Your task to perform on an android device: Go to accessibility settings Image 0: 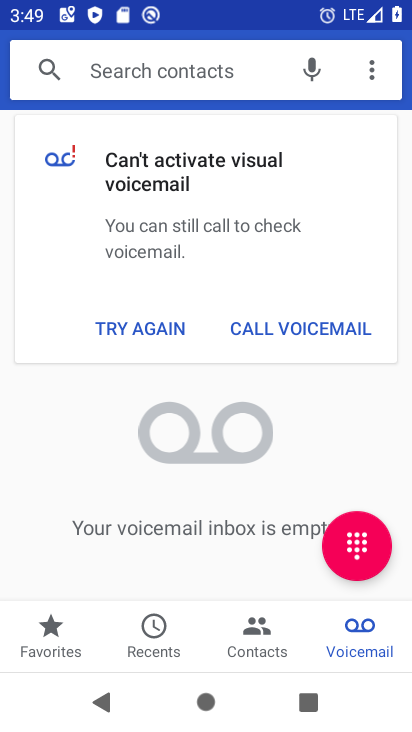
Step 0: press home button
Your task to perform on an android device: Go to accessibility settings Image 1: 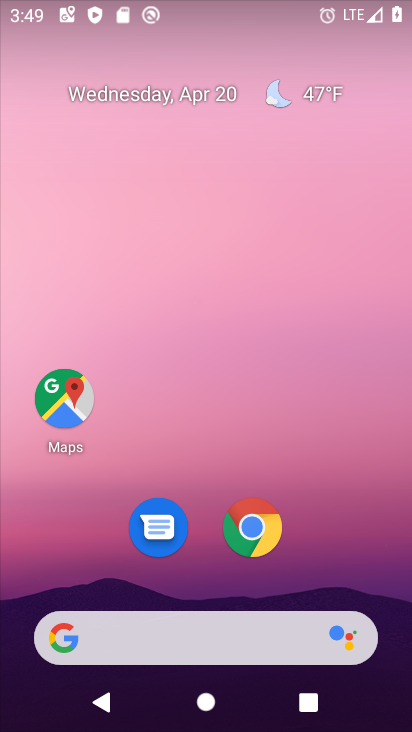
Step 1: drag from (347, 517) to (337, 156)
Your task to perform on an android device: Go to accessibility settings Image 2: 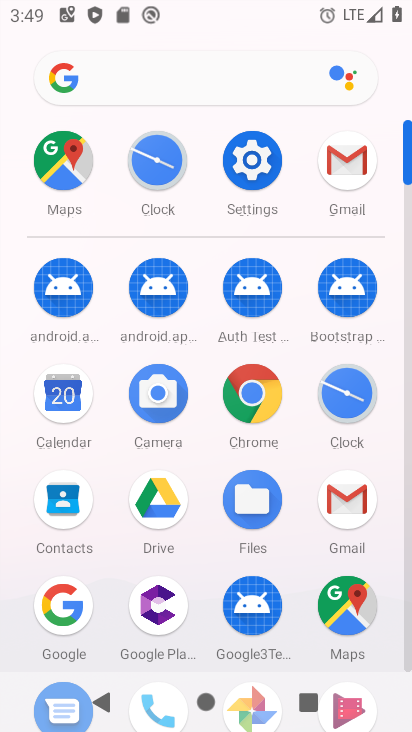
Step 2: click (261, 178)
Your task to perform on an android device: Go to accessibility settings Image 3: 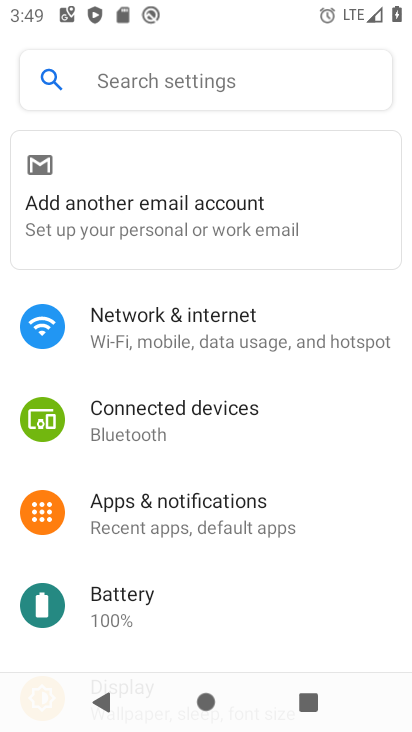
Step 3: drag from (237, 592) to (244, 243)
Your task to perform on an android device: Go to accessibility settings Image 4: 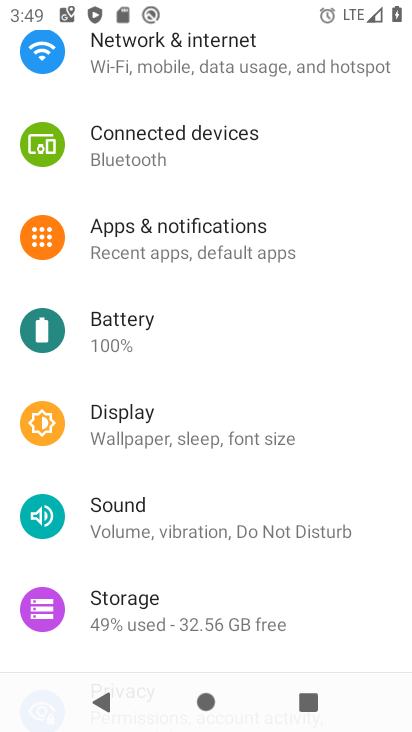
Step 4: drag from (183, 595) to (223, 176)
Your task to perform on an android device: Go to accessibility settings Image 5: 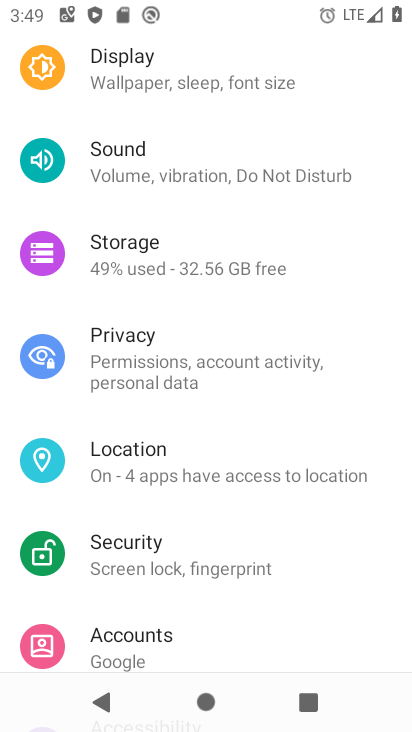
Step 5: drag from (197, 640) to (247, 284)
Your task to perform on an android device: Go to accessibility settings Image 6: 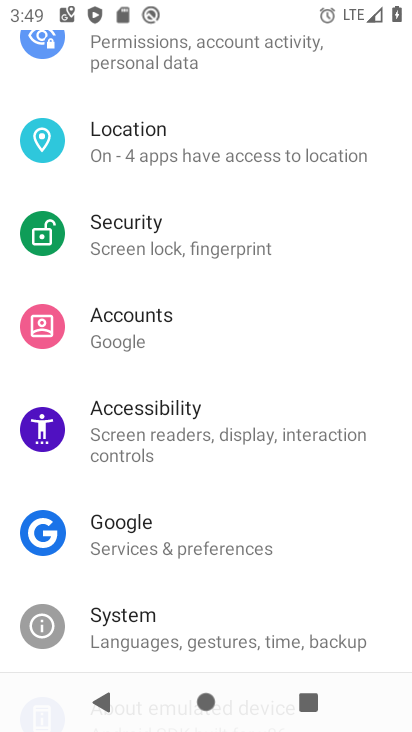
Step 6: click (198, 443)
Your task to perform on an android device: Go to accessibility settings Image 7: 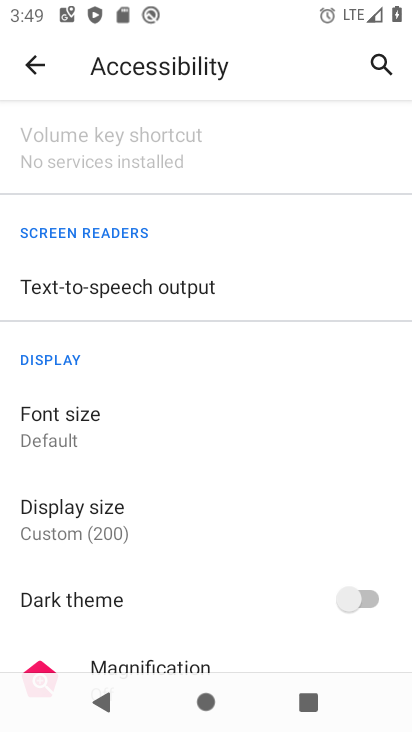
Step 7: task complete